Your task to perform on an android device: check android version Image 0: 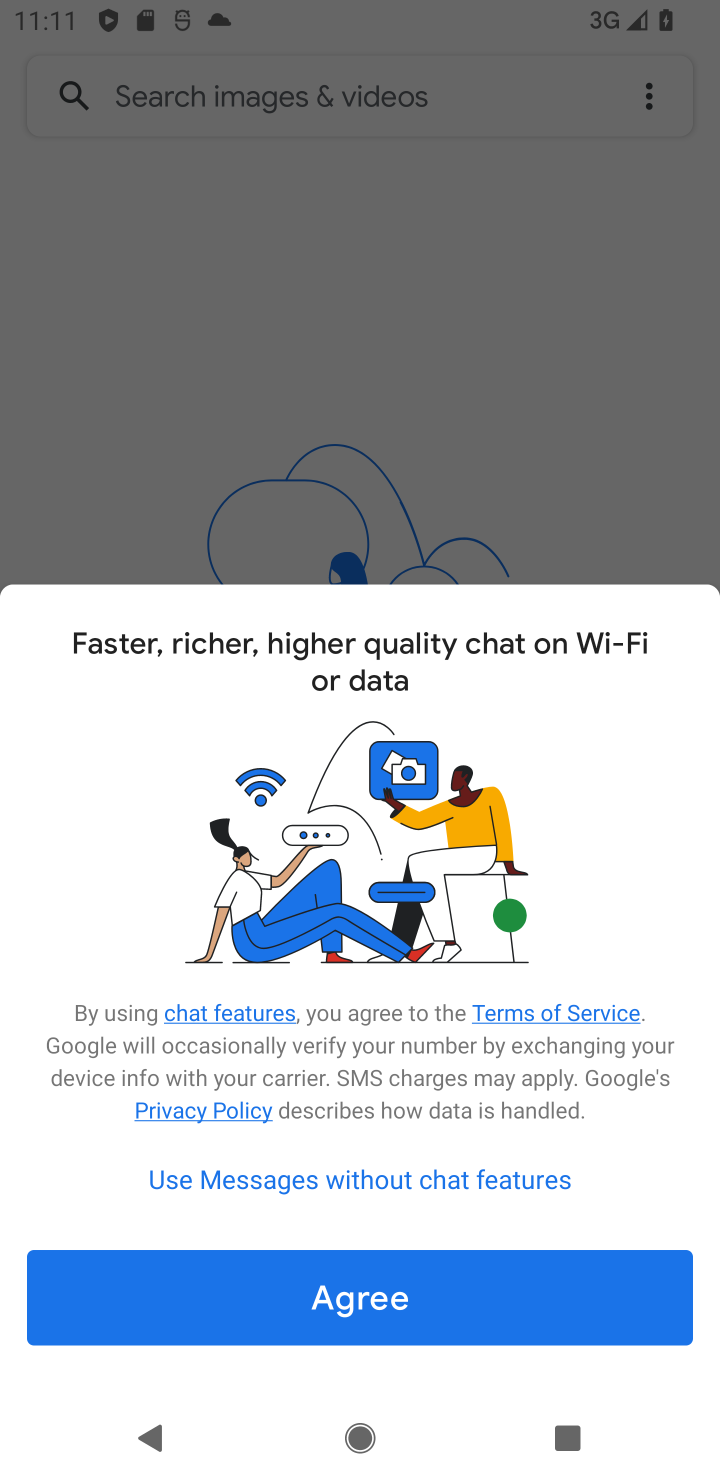
Step 0: press home button
Your task to perform on an android device: check android version Image 1: 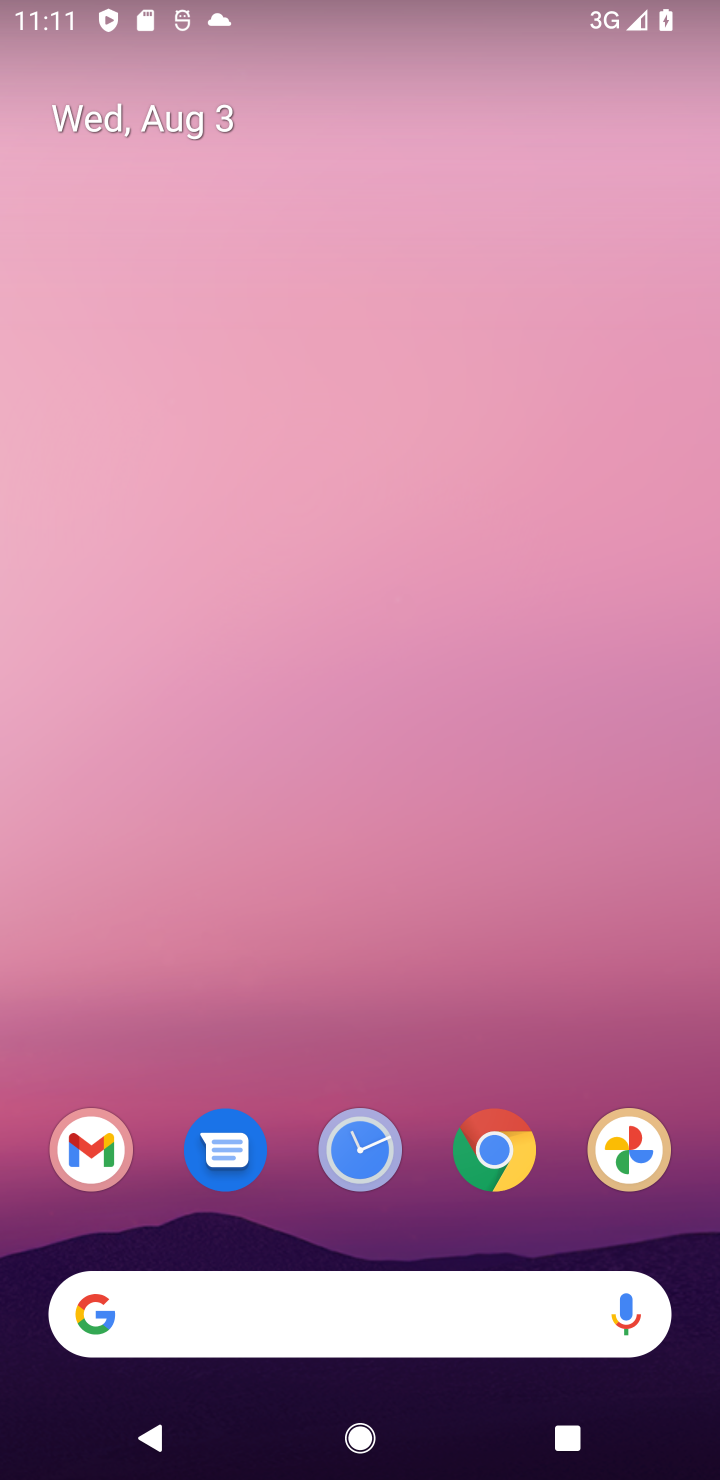
Step 1: press home button
Your task to perform on an android device: check android version Image 2: 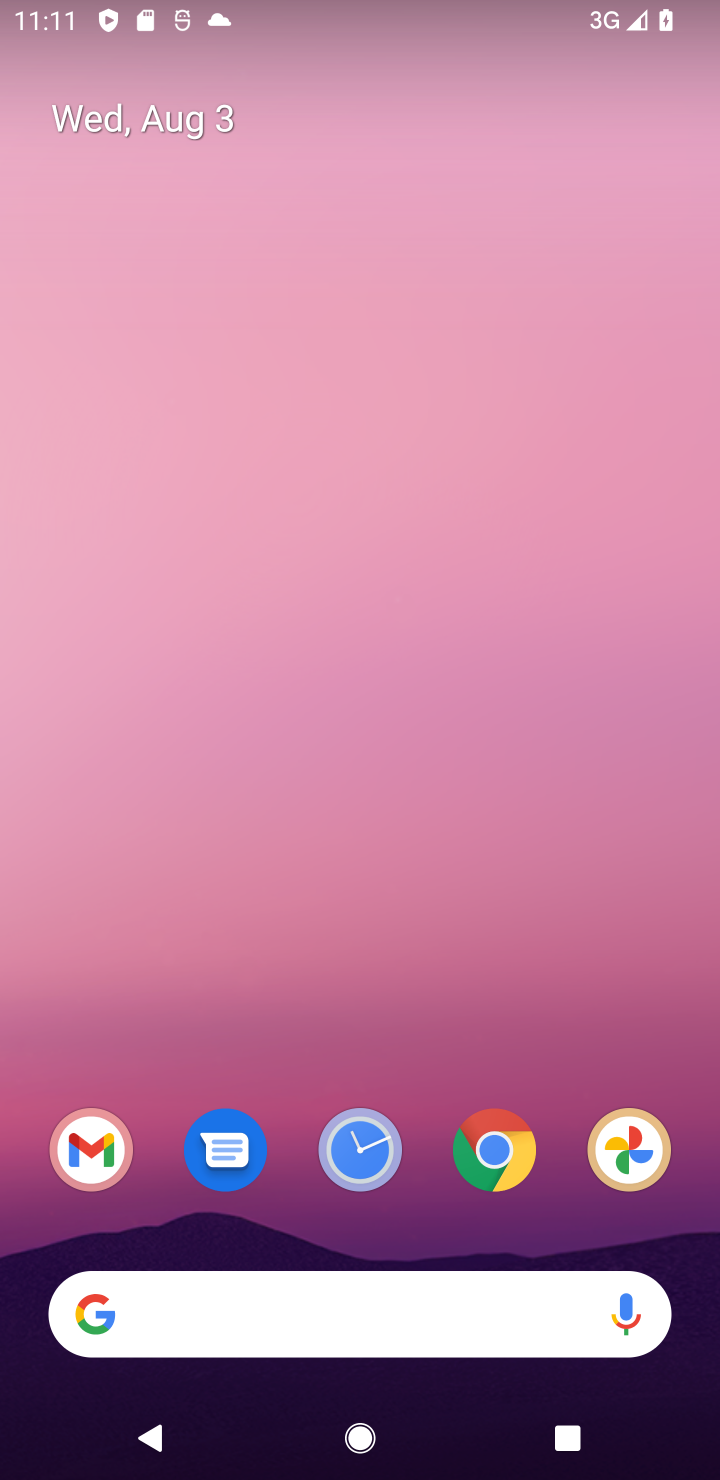
Step 2: drag from (549, 1077) to (576, 349)
Your task to perform on an android device: check android version Image 3: 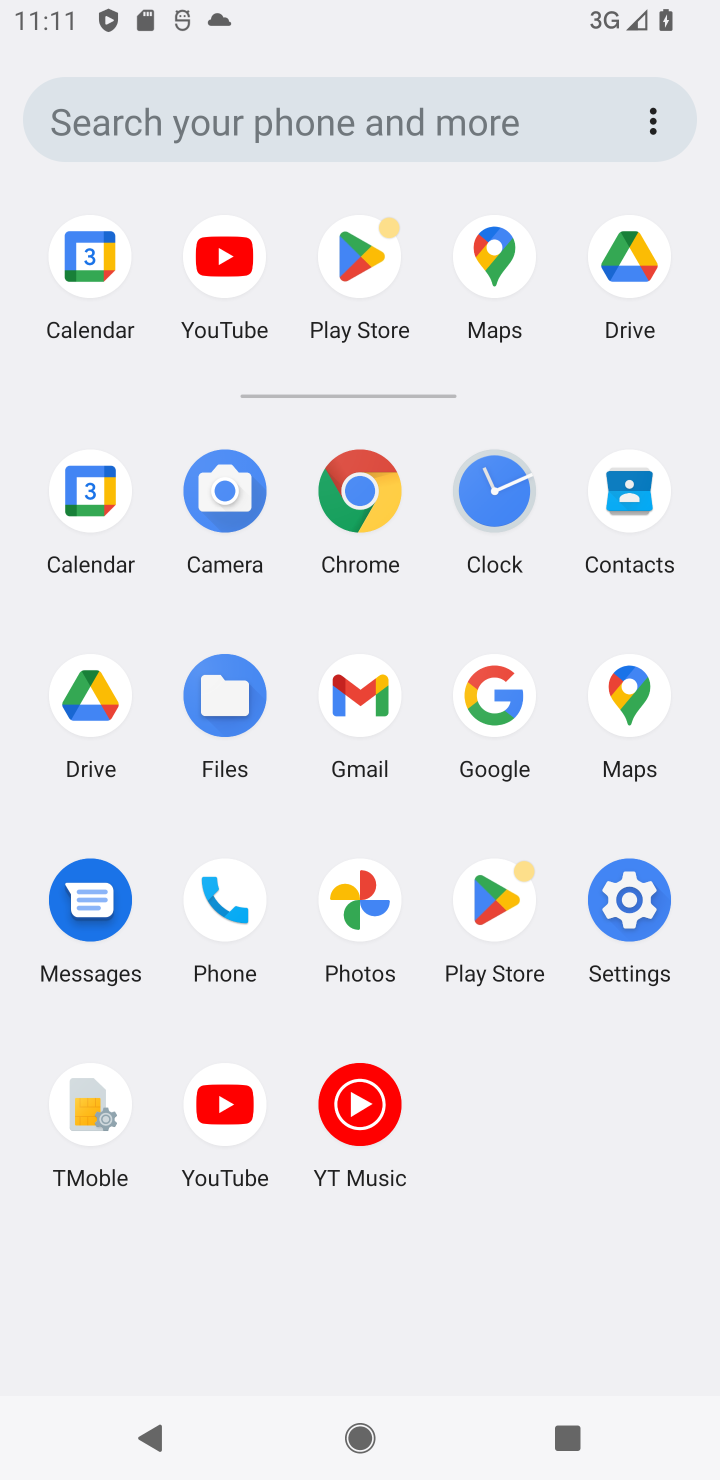
Step 3: click (647, 914)
Your task to perform on an android device: check android version Image 4: 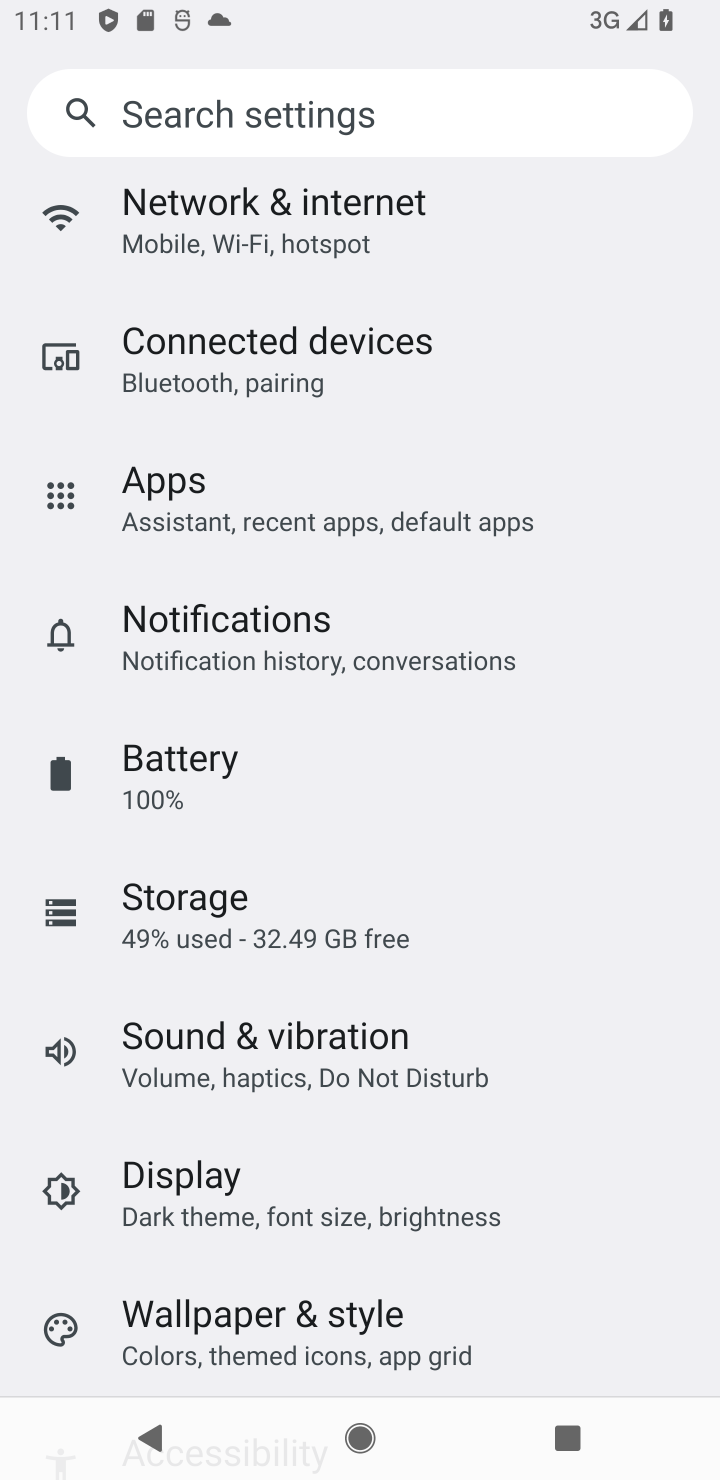
Step 4: drag from (571, 1207) to (607, 945)
Your task to perform on an android device: check android version Image 5: 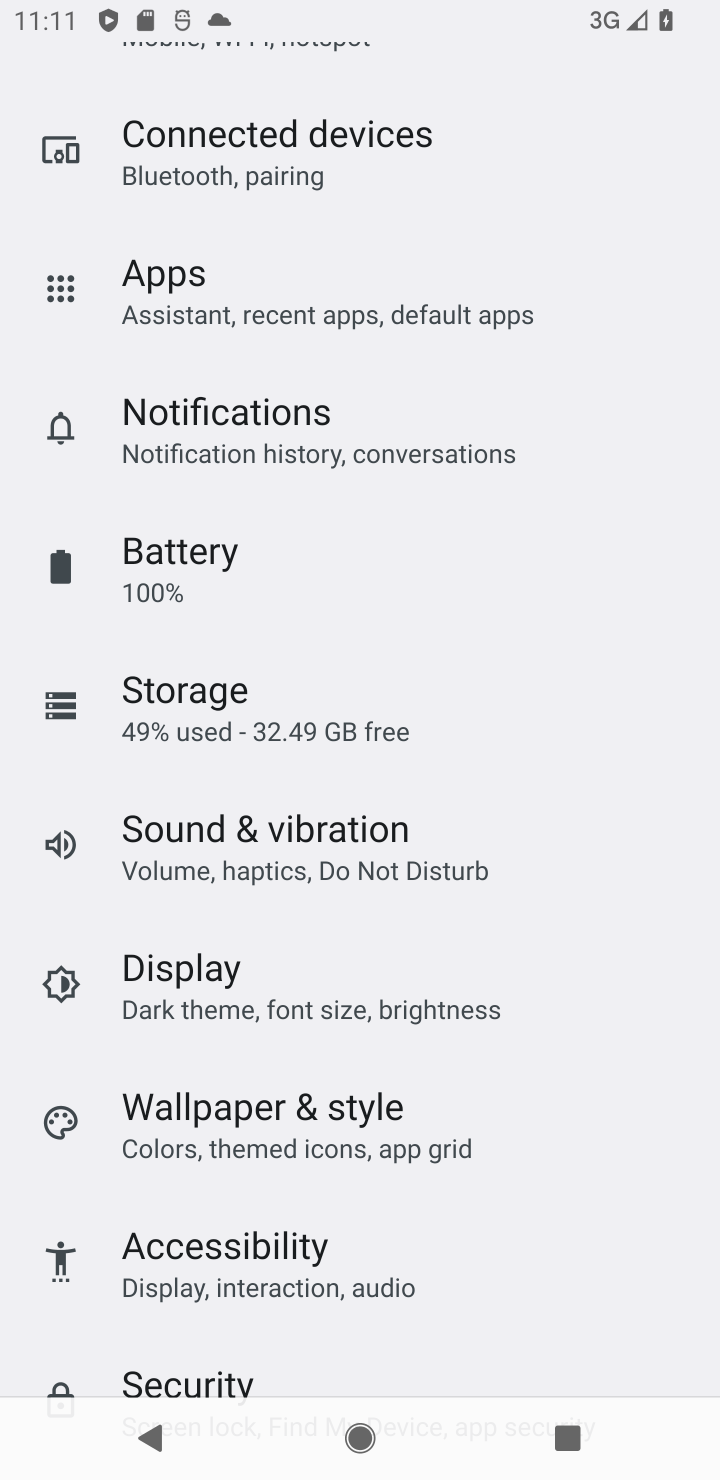
Step 5: drag from (579, 1244) to (599, 907)
Your task to perform on an android device: check android version Image 6: 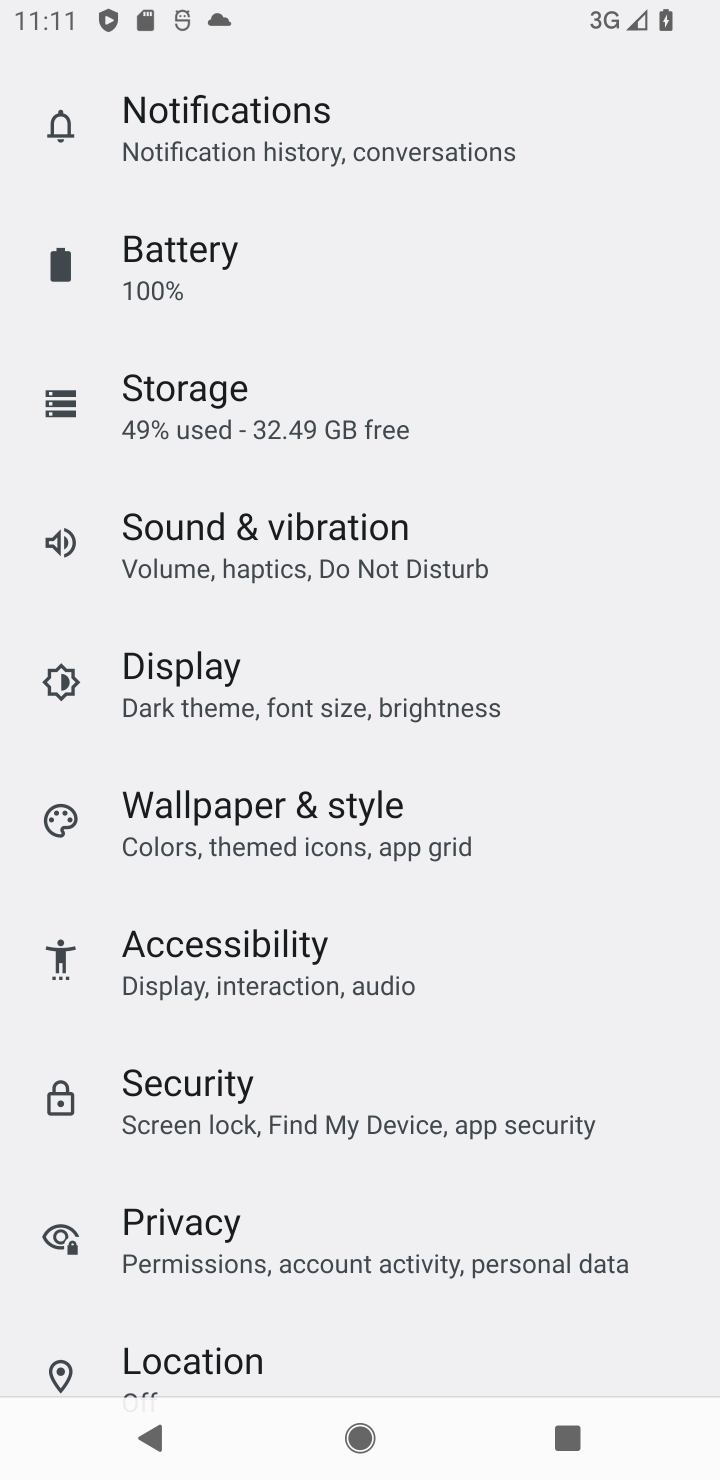
Step 6: drag from (605, 1301) to (621, 1042)
Your task to perform on an android device: check android version Image 7: 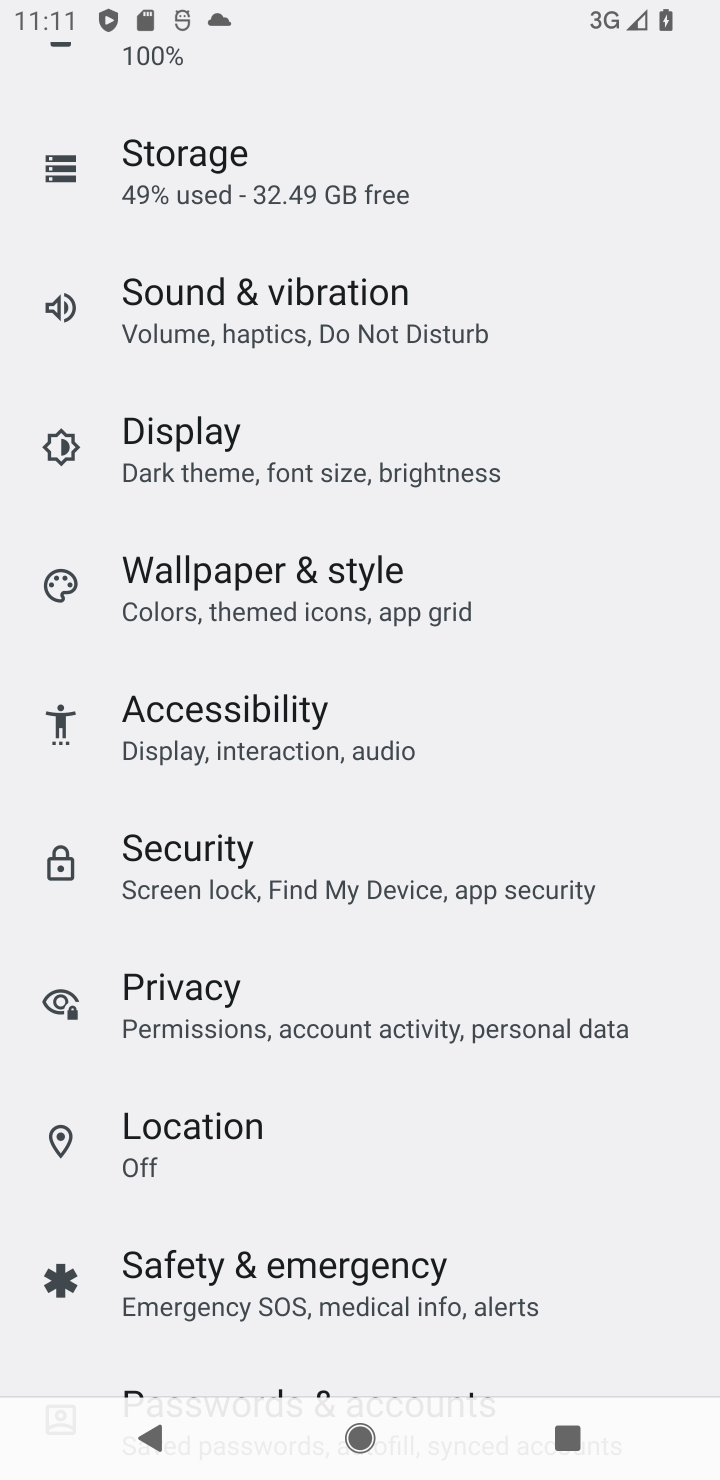
Step 7: drag from (619, 1319) to (633, 969)
Your task to perform on an android device: check android version Image 8: 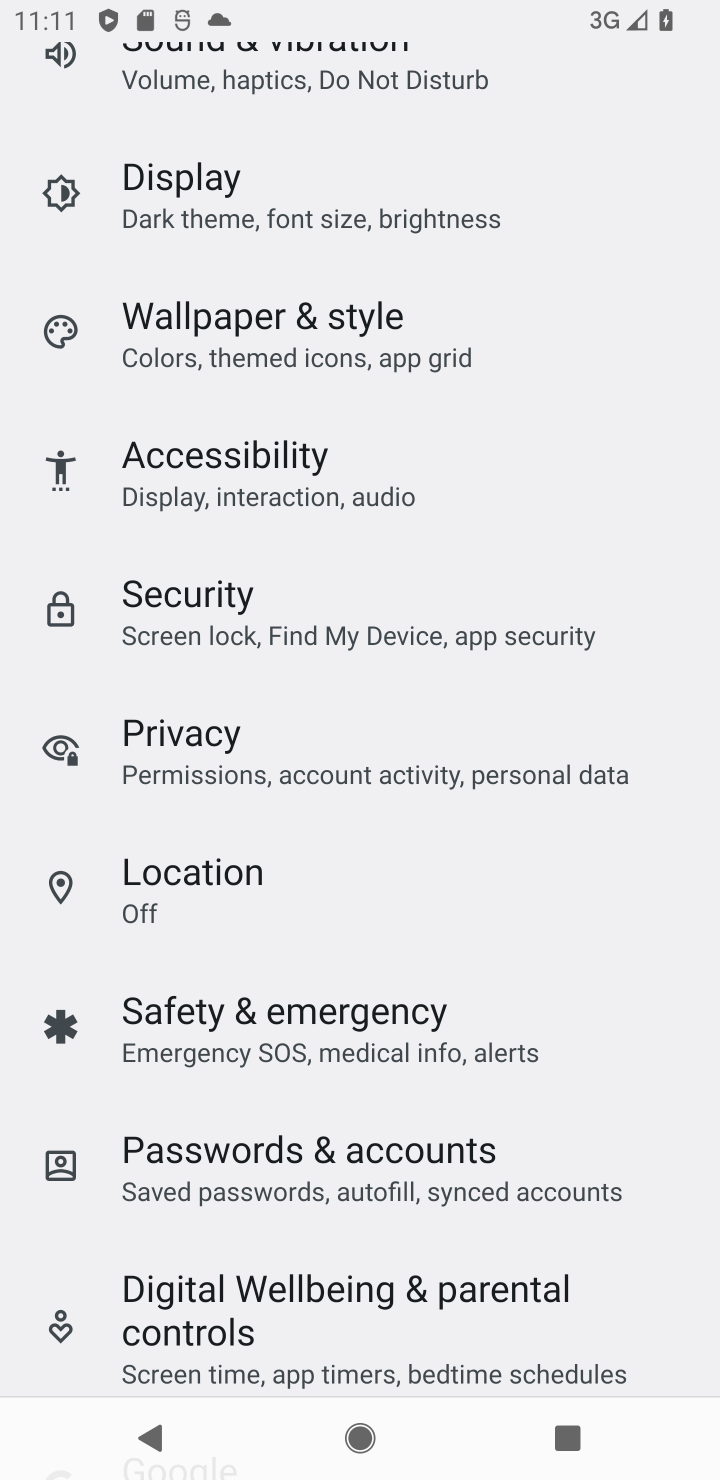
Step 8: drag from (629, 1229) to (638, 1018)
Your task to perform on an android device: check android version Image 9: 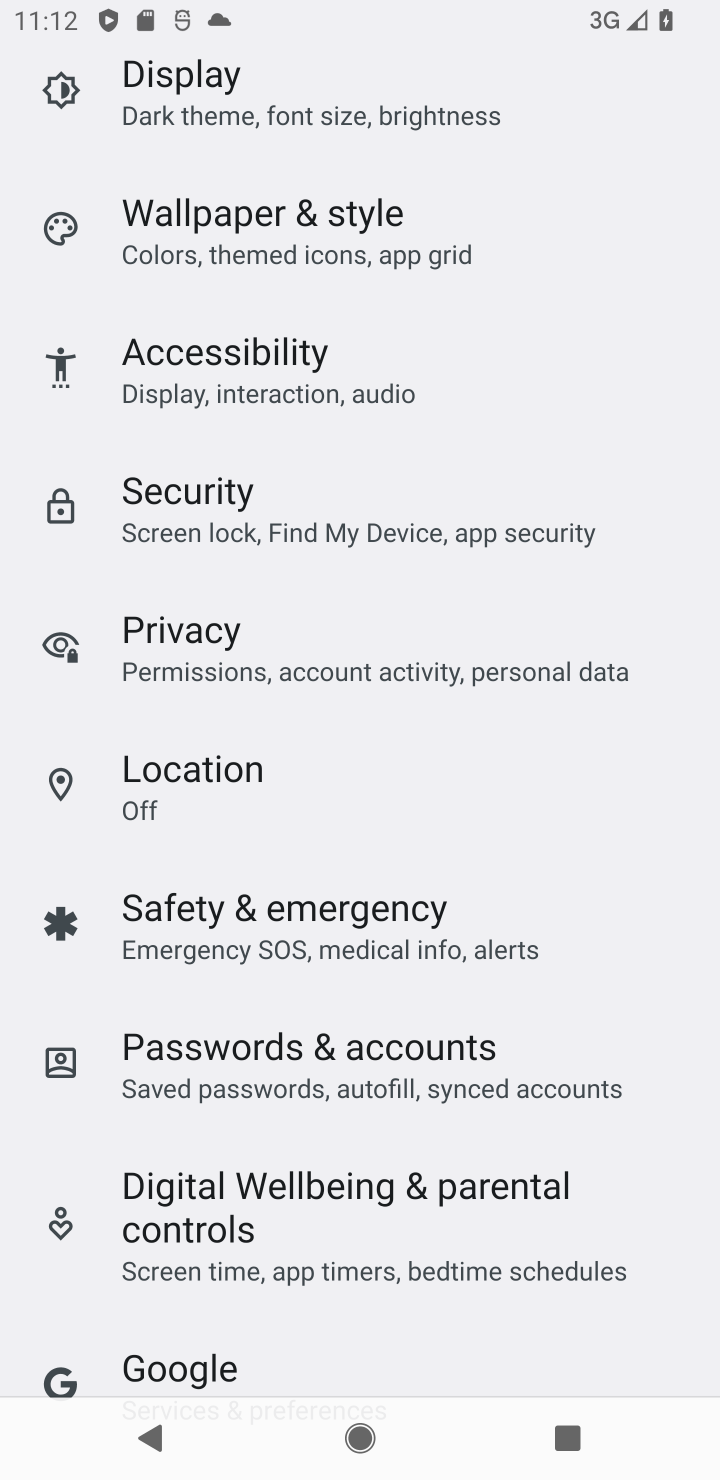
Step 9: drag from (570, 1328) to (605, 1083)
Your task to perform on an android device: check android version Image 10: 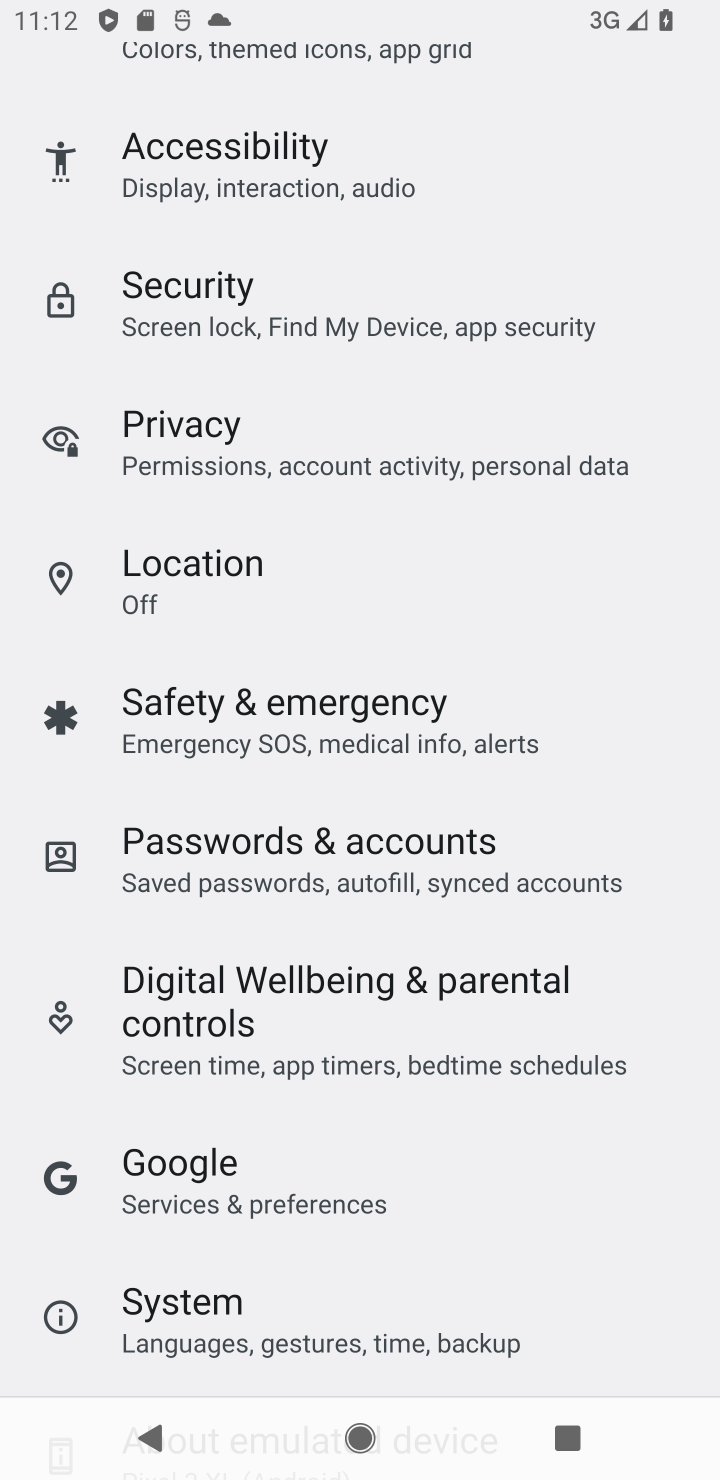
Step 10: drag from (597, 1270) to (606, 1042)
Your task to perform on an android device: check android version Image 11: 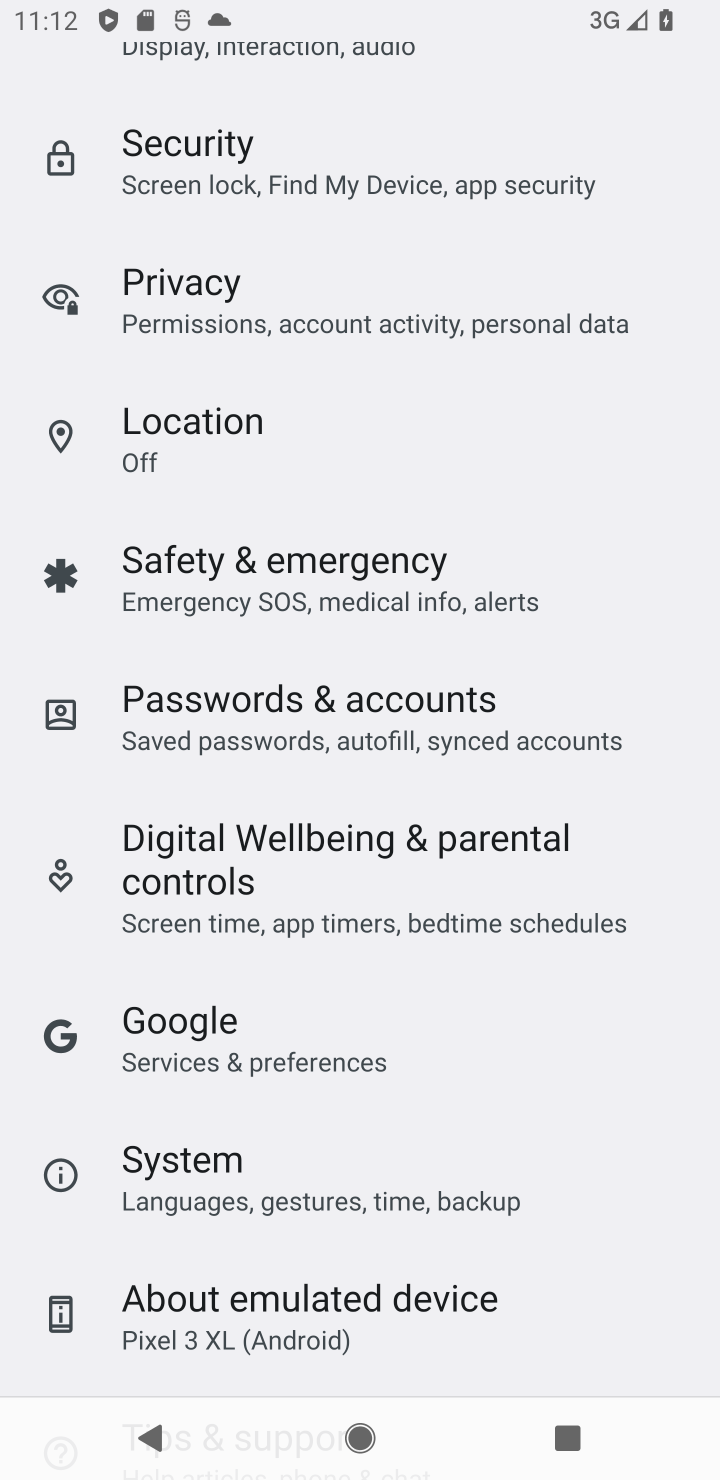
Step 11: click (572, 1169)
Your task to perform on an android device: check android version Image 12: 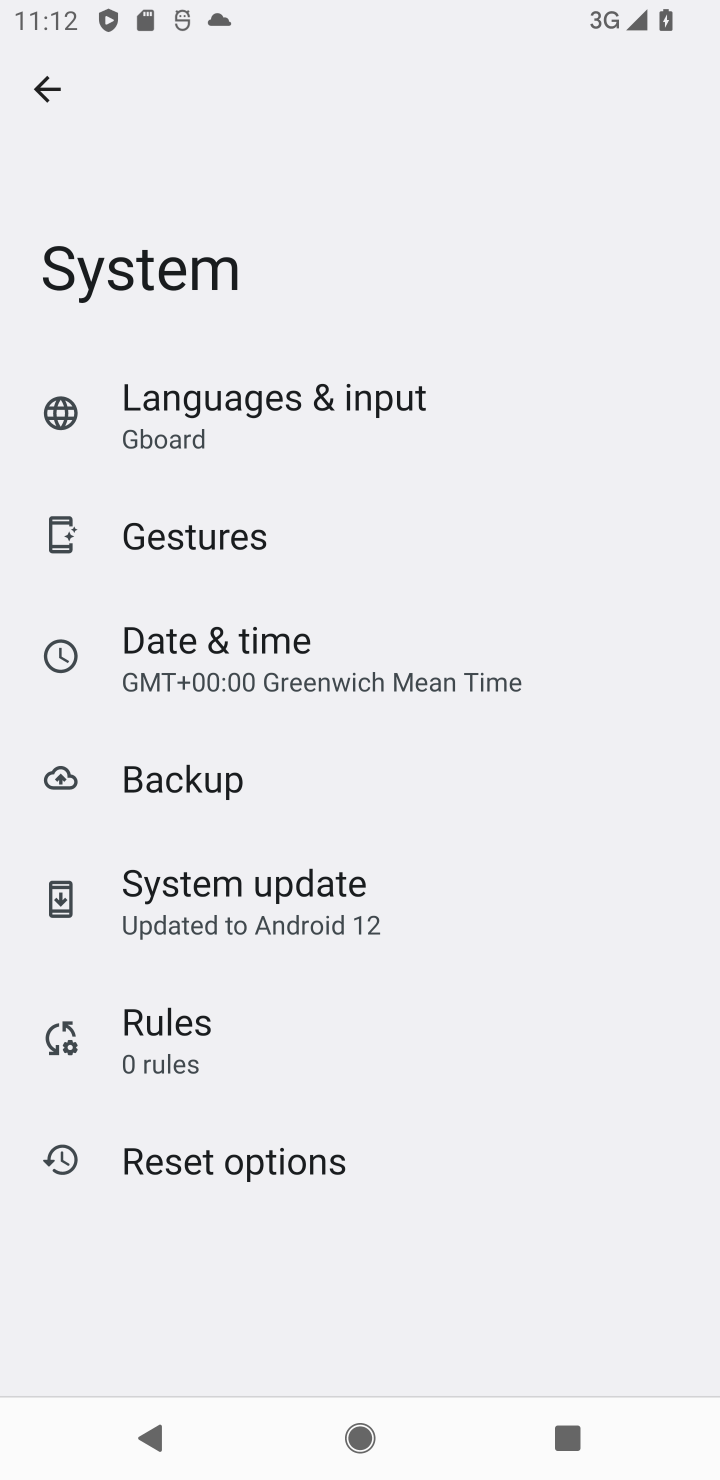
Step 12: click (338, 871)
Your task to perform on an android device: check android version Image 13: 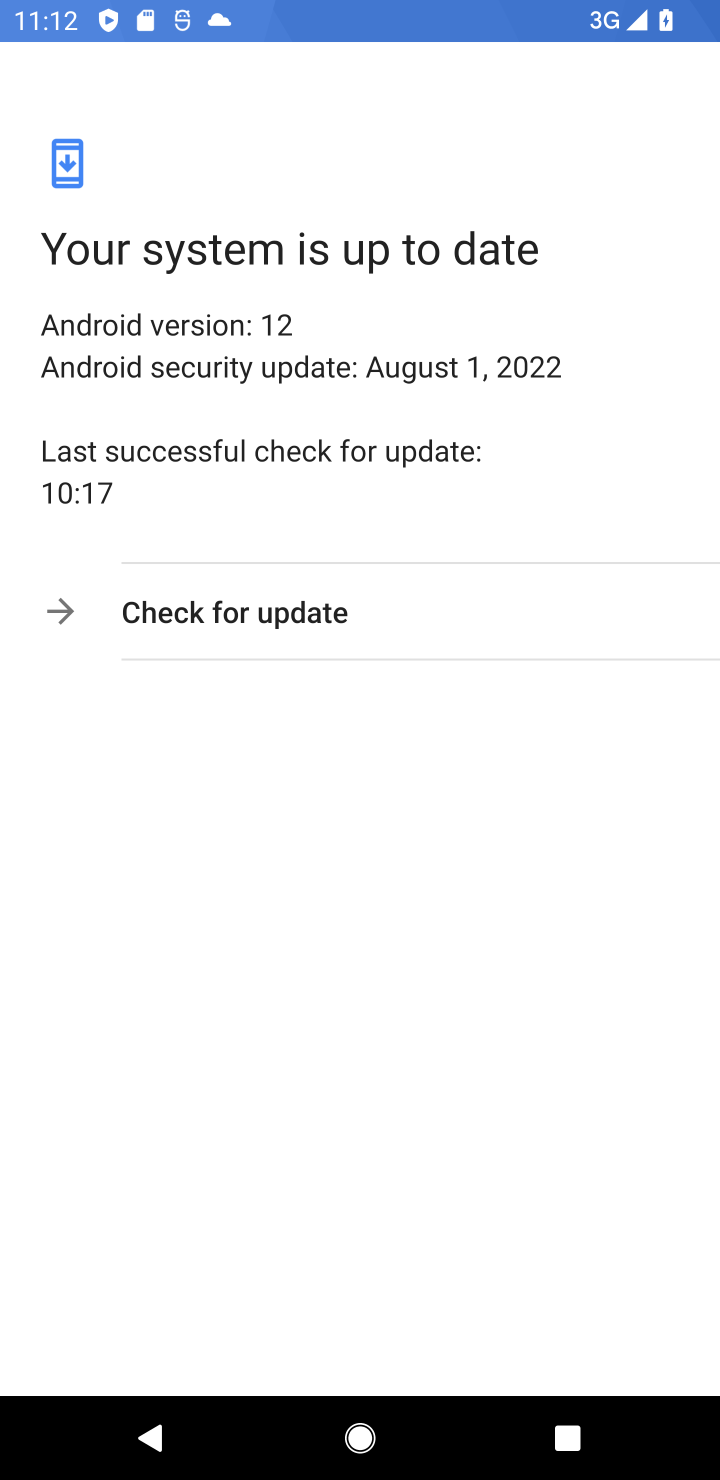
Step 13: task complete